Your task to perform on an android device: Search for Mexican restaurants on Maps Image 0: 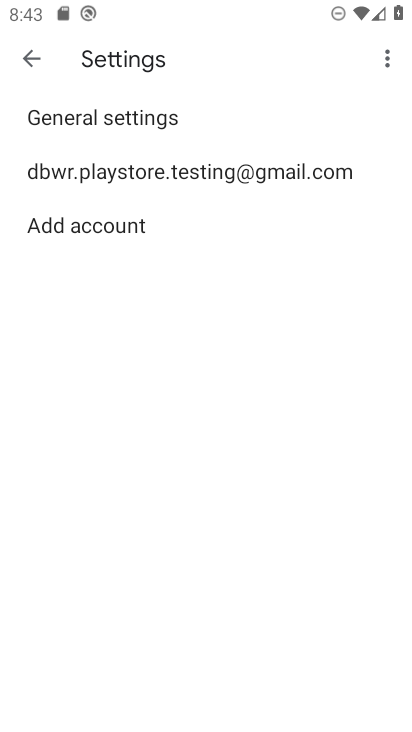
Step 0: press home button
Your task to perform on an android device: Search for Mexican restaurants on Maps Image 1: 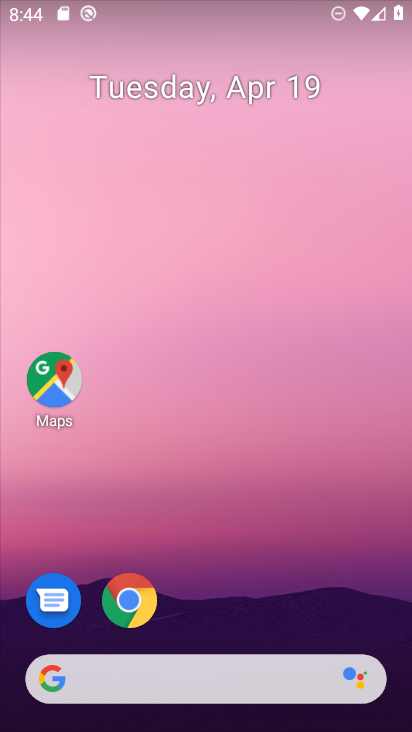
Step 1: drag from (277, 617) to (229, 3)
Your task to perform on an android device: Search for Mexican restaurants on Maps Image 2: 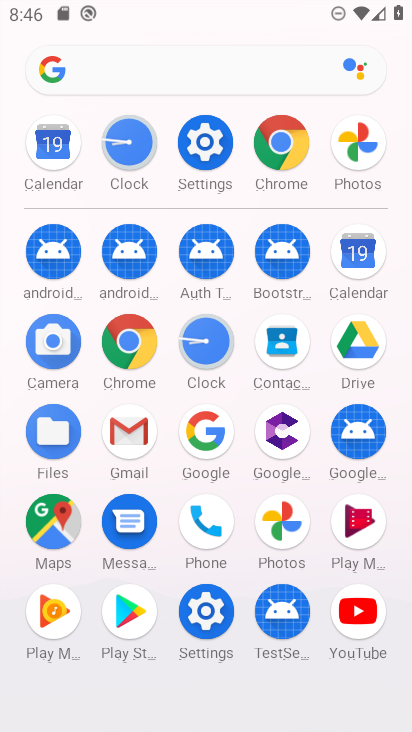
Step 2: click (48, 522)
Your task to perform on an android device: Search for Mexican restaurants on Maps Image 3: 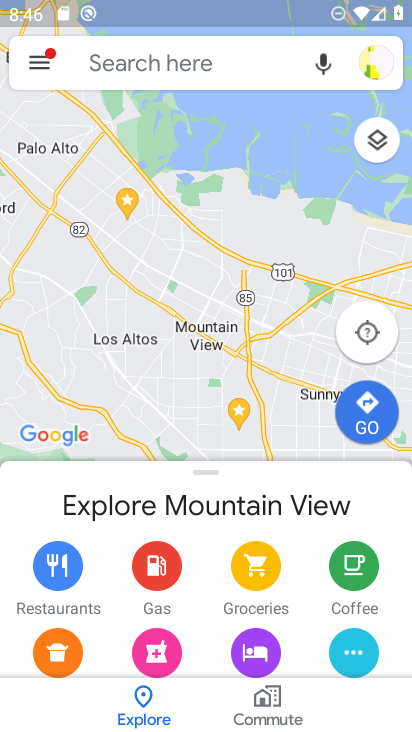
Step 3: click (188, 71)
Your task to perform on an android device: Search for Mexican restaurants on Maps Image 4: 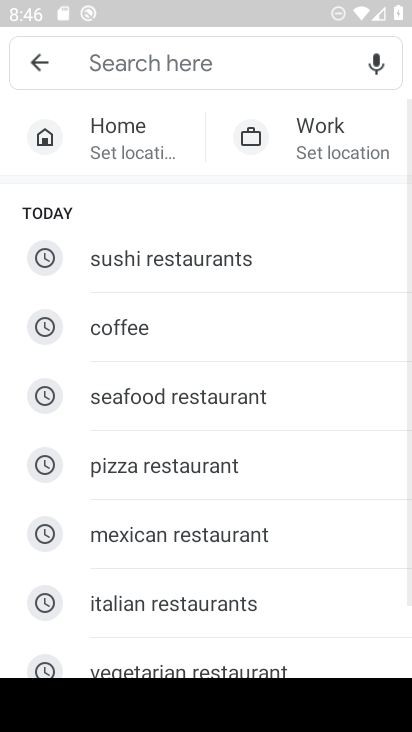
Step 4: click (169, 543)
Your task to perform on an android device: Search for Mexican restaurants on Maps Image 5: 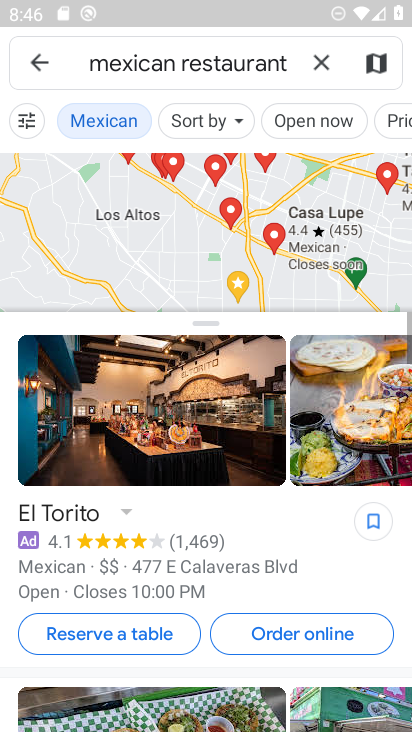
Step 5: task complete